Your task to perform on an android device: Open Maps and search for coffee Image 0: 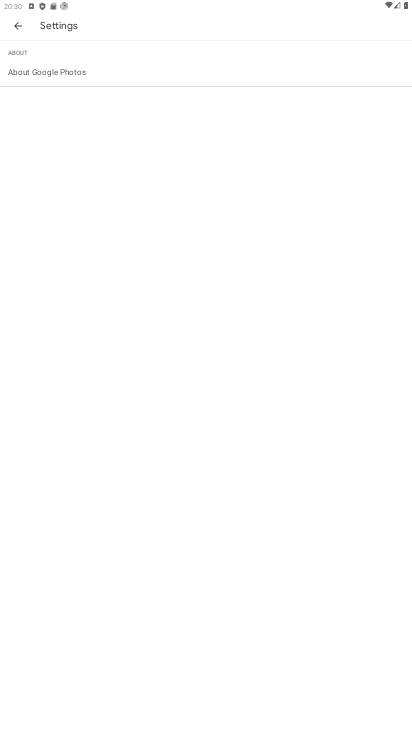
Step 0: press home button
Your task to perform on an android device: Open Maps and search for coffee Image 1: 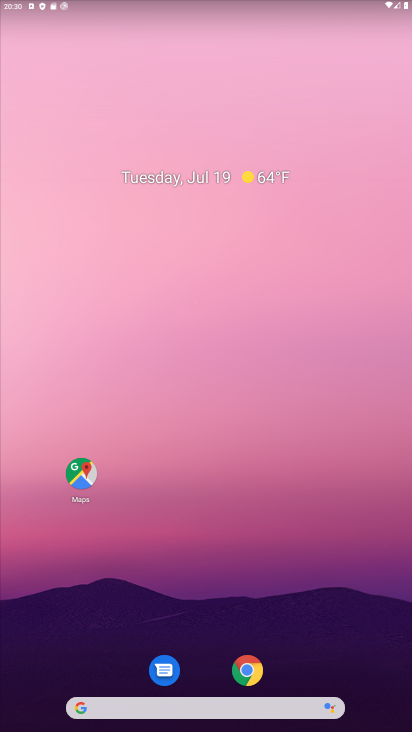
Step 1: click (80, 488)
Your task to perform on an android device: Open Maps and search for coffee Image 2: 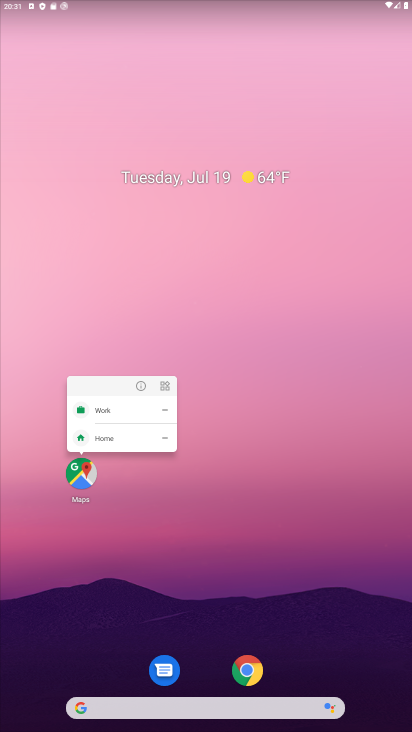
Step 2: click (80, 488)
Your task to perform on an android device: Open Maps and search for coffee Image 3: 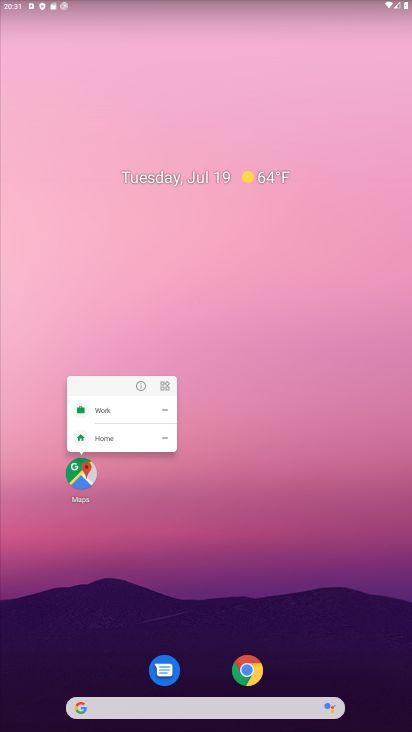
Step 3: click (80, 488)
Your task to perform on an android device: Open Maps and search for coffee Image 4: 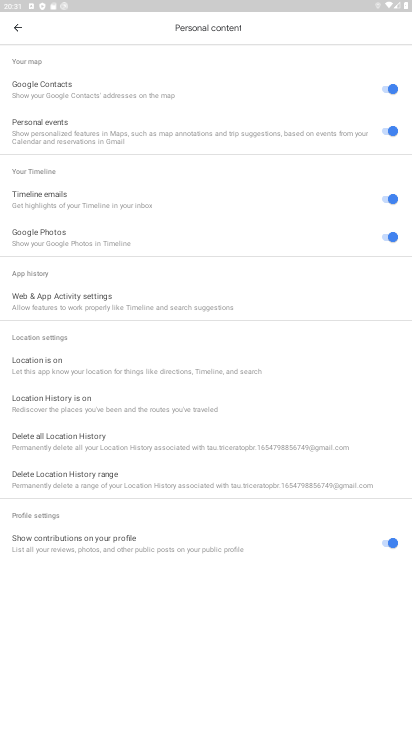
Step 4: click (13, 30)
Your task to perform on an android device: Open Maps and search for coffee Image 5: 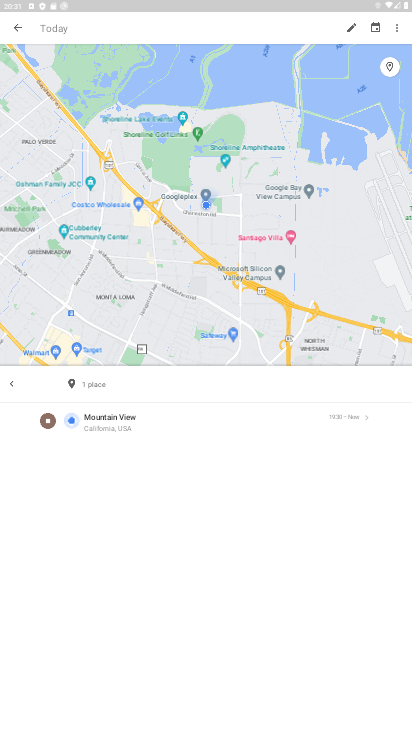
Step 5: click (13, 29)
Your task to perform on an android device: Open Maps and search for coffee Image 6: 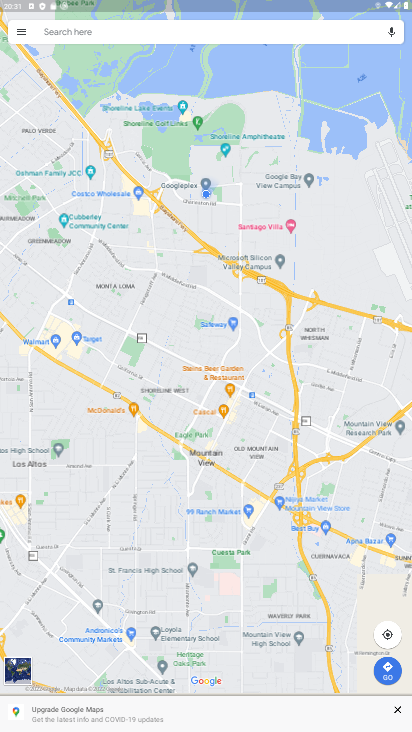
Step 6: click (100, 27)
Your task to perform on an android device: Open Maps and search for coffee Image 7: 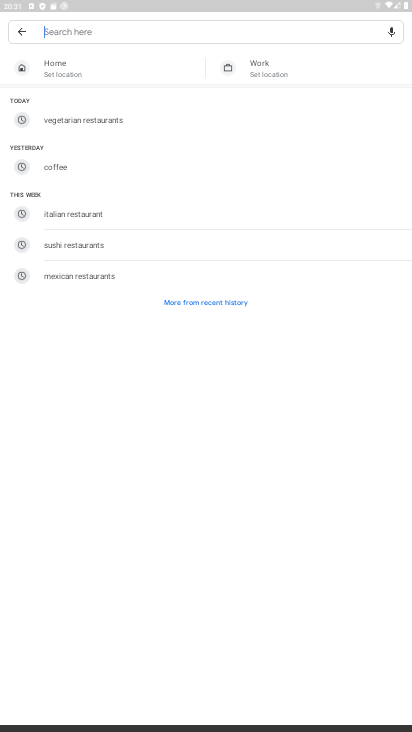
Step 7: click (66, 171)
Your task to perform on an android device: Open Maps and search for coffee Image 8: 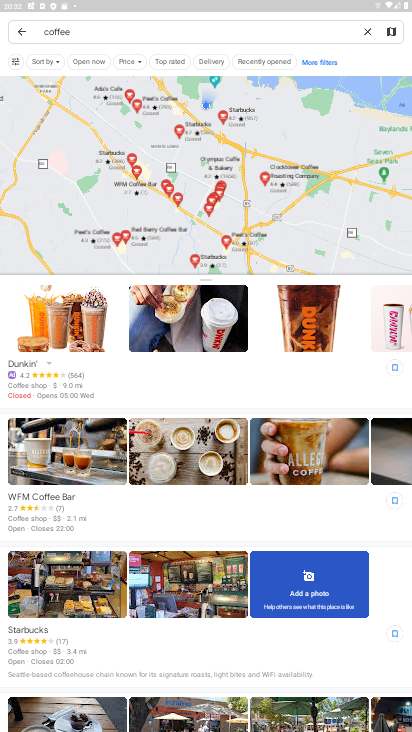
Step 8: task complete